Your task to perform on an android device: Search for the best selling books on Target. Image 0: 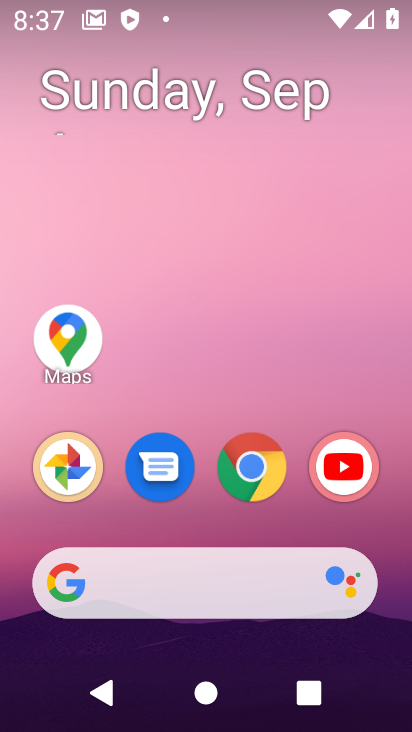
Step 0: click (246, 485)
Your task to perform on an android device: Search for the best selling books on Target. Image 1: 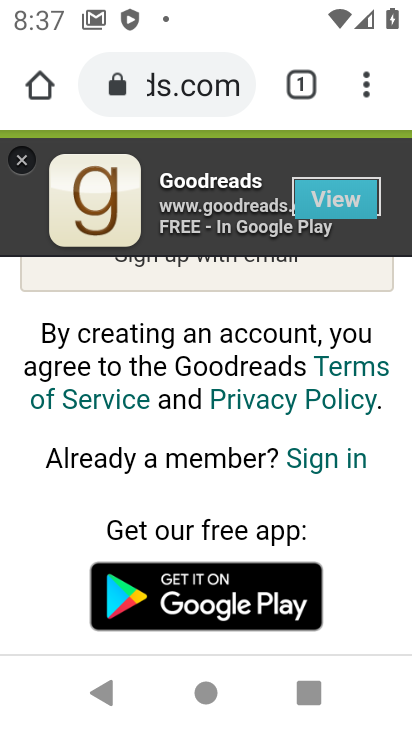
Step 1: click (187, 76)
Your task to perform on an android device: Search for the best selling books on Target. Image 2: 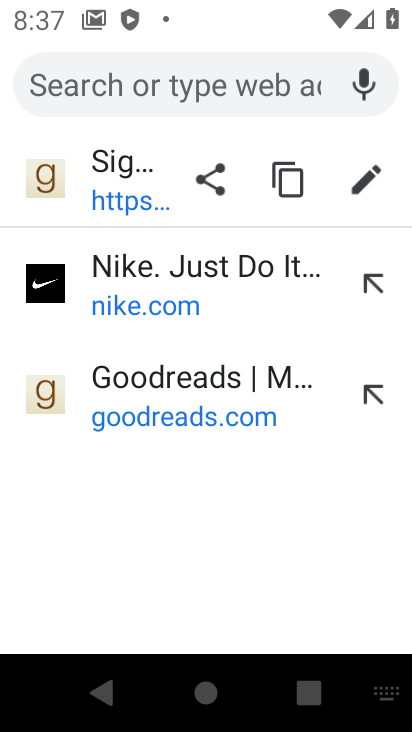
Step 2: type "target"
Your task to perform on an android device: Search for the best selling books on Target. Image 3: 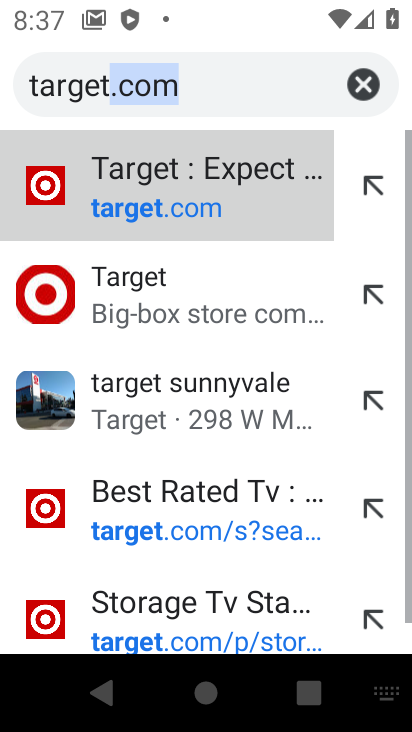
Step 3: type ""
Your task to perform on an android device: Search for the best selling books on Target. Image 4: 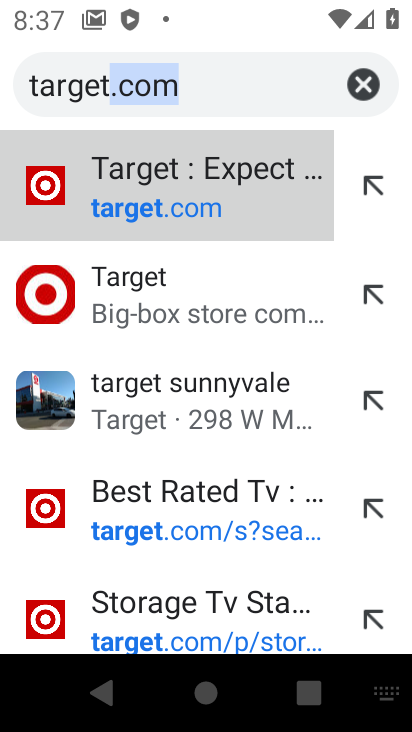
Step 4: click (167, 215)
Your task to perform on an android device: Search for the best selling books on Target. Image 5: 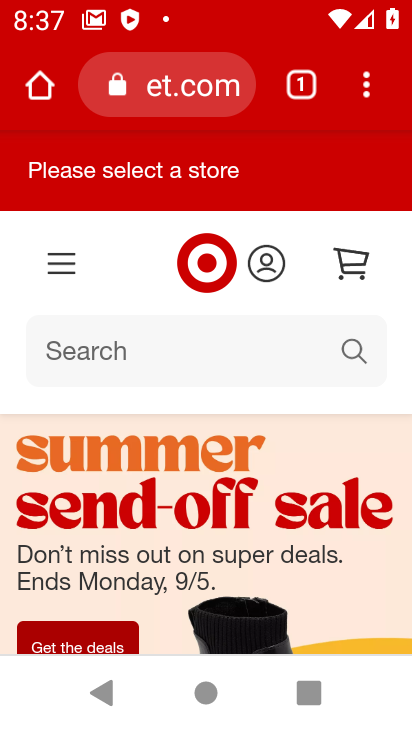
Step 5: click (257, 346)
Your task to perform on an android device: Search for the best selling books on Target. Image 6: 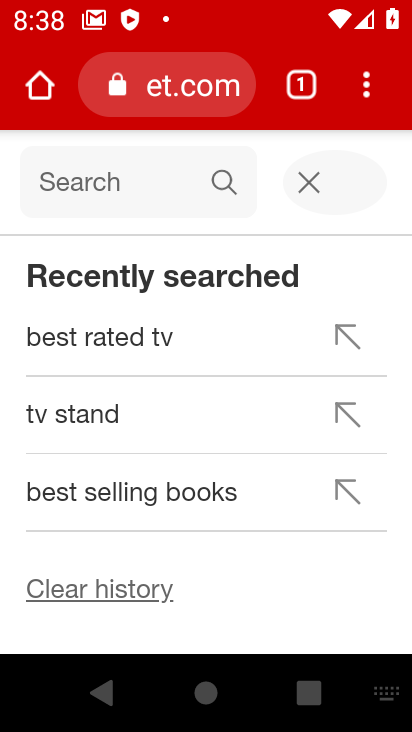
Step 6: click (173, 496)
Your task to perform on an android device: Search for the best selling books on Target. Image 7: 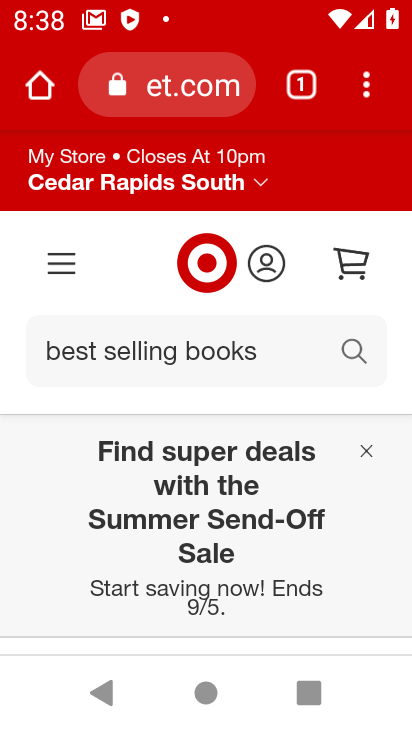
Step 7: click (347, 345)
Your task to perform on an android device: Search for the best selling books on Target. Image 8: 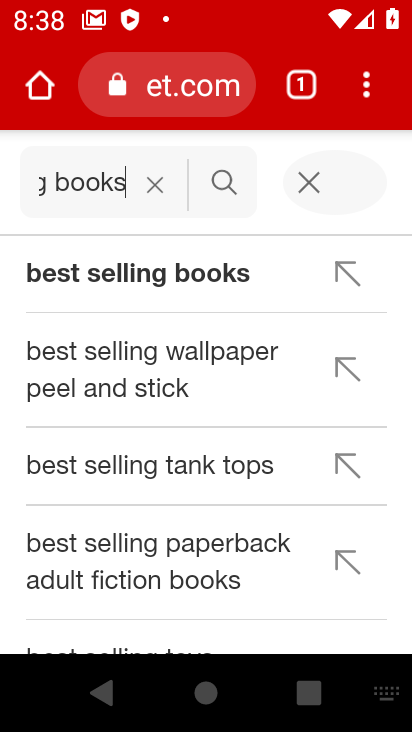
Step 8: click (123, 269)
Your task to perform on an android device: Search for the best selling books on Target. Image 9: 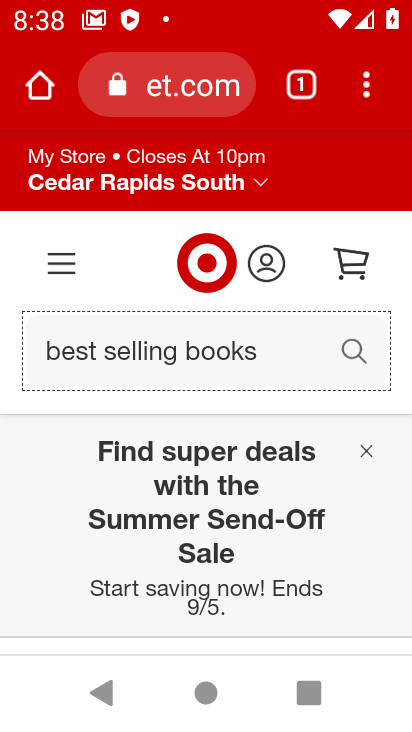
Step 9: click (391, 550)
Your task to perform on an android device: Search for the best selling books on Target. Image 10: 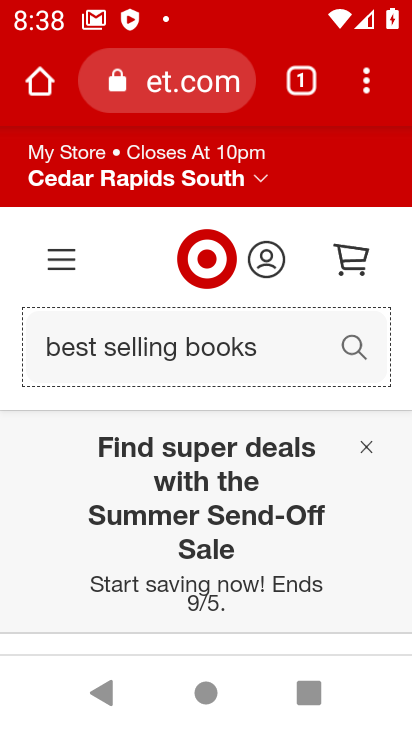
Step 10: drag from (360, 571) to (384, 207)
Your task to perform on an android device: Search for the best selling books on Target. Image 11: 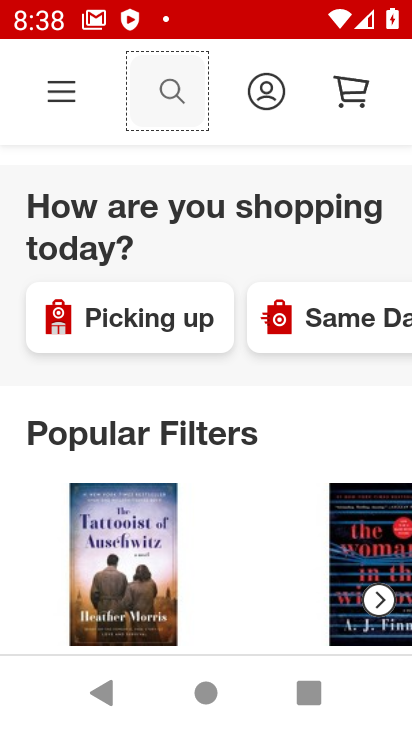
Step 11: drag from (391, 232) to (390, 169)
Your task to perform on an android device: Search for the best selling books on Target. Image 12: 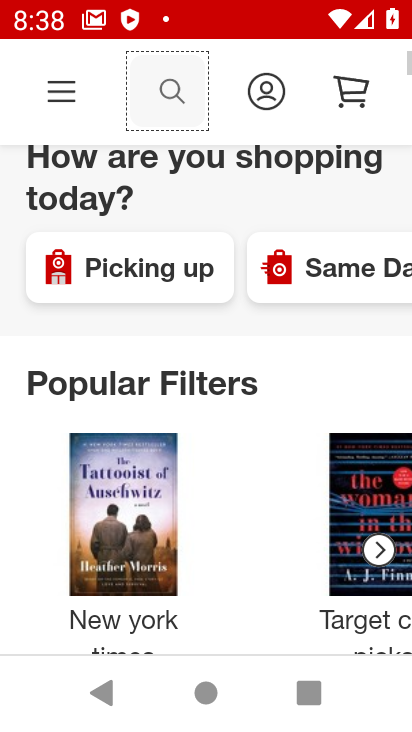
Step 12: drag from (285, 360) to (302, 98)
Your task to perform on an android device: Search for the best selling books on Target. Image 13: 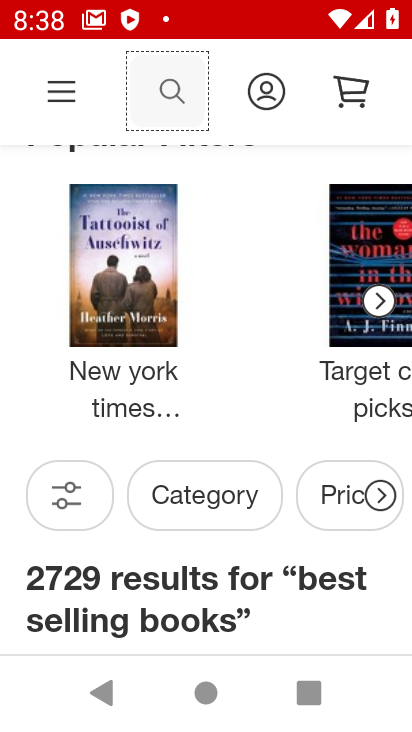
Step 13: drag from (247, 395) to (271, 171)
Your task to perform on an android device: Search for the best selling books on Target. Image 14: 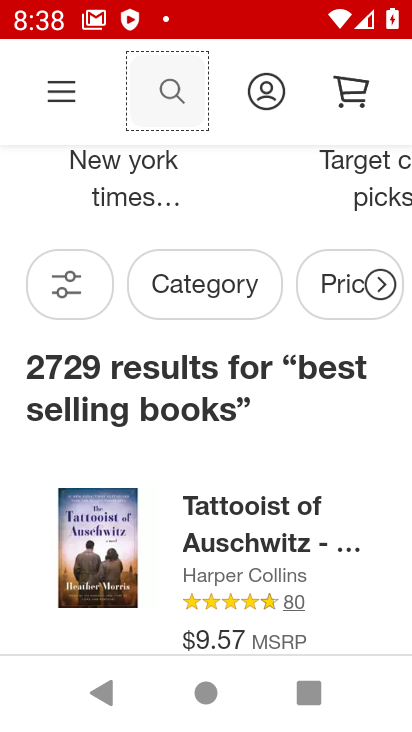
Step 14: drag from (379, 358) to (386, 77)
Your task to perform on an android device: Search for the best selling books on Target. Image 15: 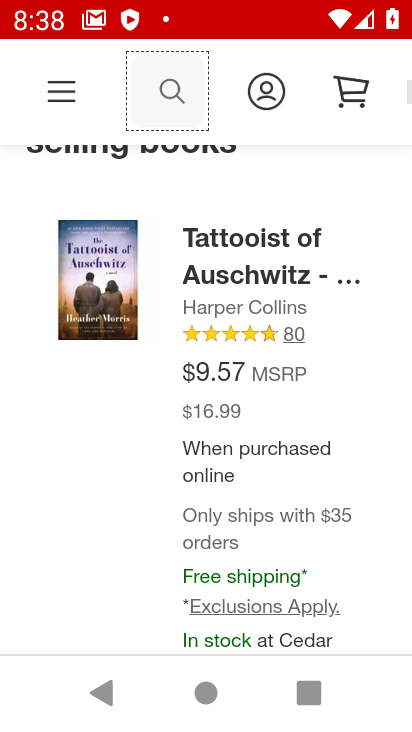
Step 15: drag from (381, 496) to (380, 140)
Your task to perform on an android device: Search for the best selling books on Target. Image 16: 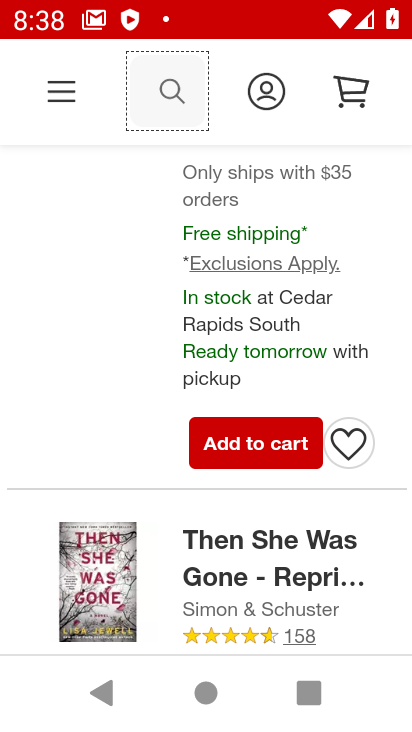
Step 16: click (410, 242)
Your task to perform on an android device: Search for the best selling books on Target. Image 17: 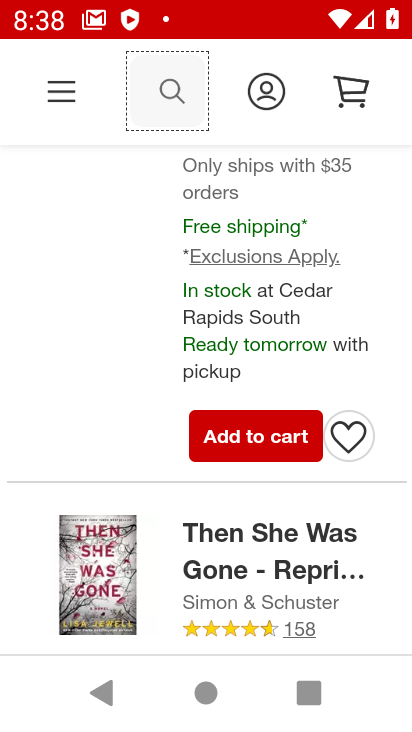
Step 17: drag from (372, 541) to (356, 265)
Your task to perform on an android device: Search for the best selling books on Target. Image 18: 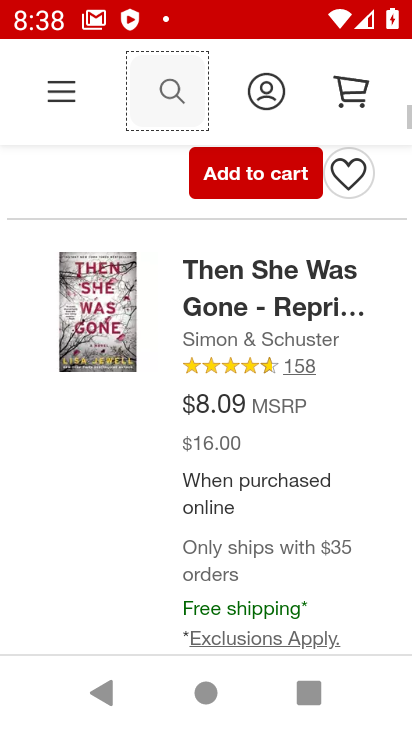
Step 18: drag from (357, 530) to (384, 284)
Your task to perform on an android device: Search for the best selling books on Target. Image 19: 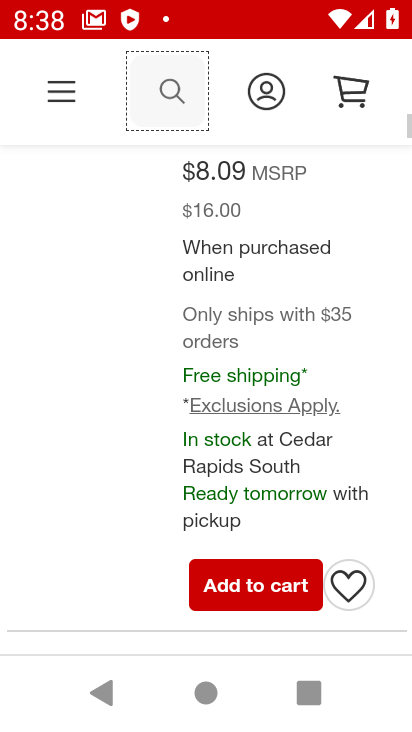
Step 19: drag from (407, 611) to (408, 366)
Your task to perform on an android device: Search for the best selling books on Target. Image 20: 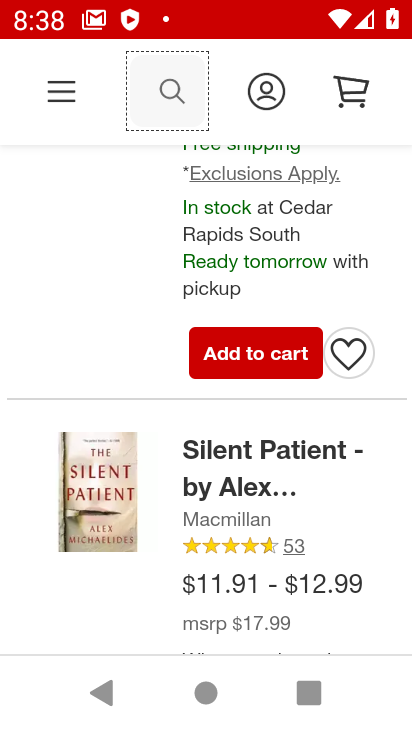
Step 20: drag from (366, 525) to (381, 308)
Your task to perform on an android device: Search for the best selling books on Target. Image 21: 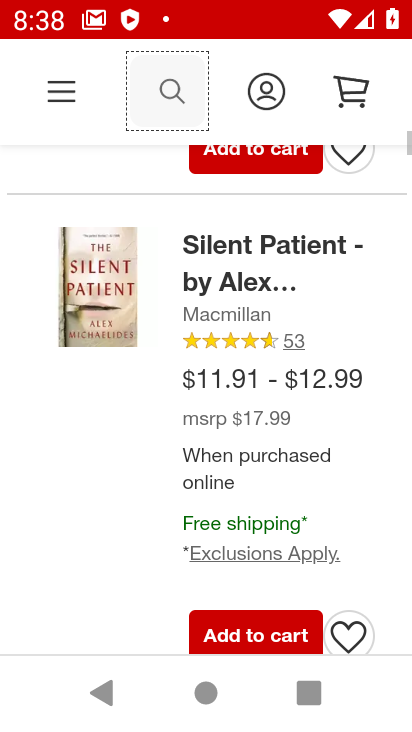
Step 21: click (364, 316)
Your task to perform on an android device: Search for the best selling books on Target. Image 22: 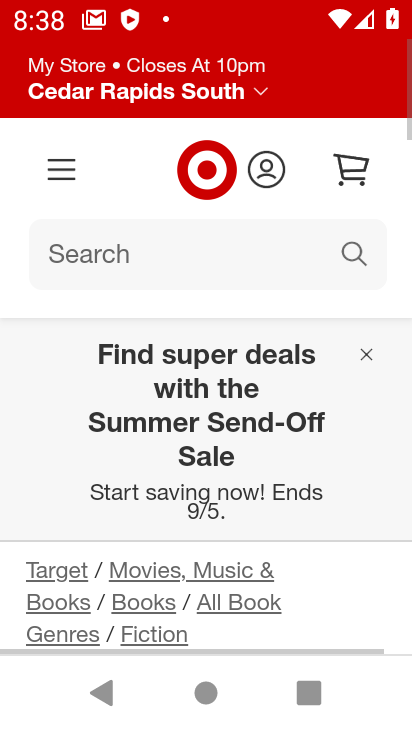
Step 22: drag from (375, 418) to (367, 173)
Your task to perform on an android device: Search for the best selling books on Target. Image 23: 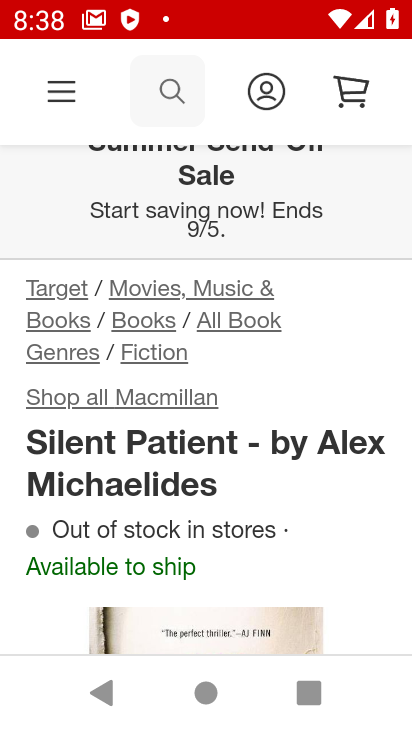
Step 23: drag from (365, 570) to (362, 238)
Your task to perform on an android device: Search for the best selling books on Target. Image 24: 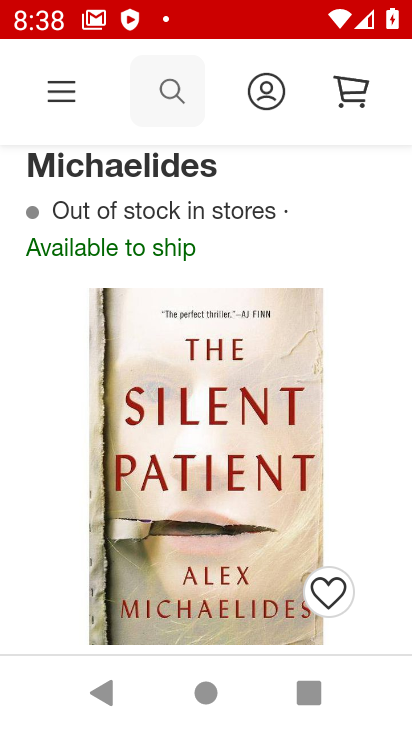
Step 24: drag from (327, 268) to (340, 173)
Your task to perform on an android device: Search for the best selling books on Target. Image 25: 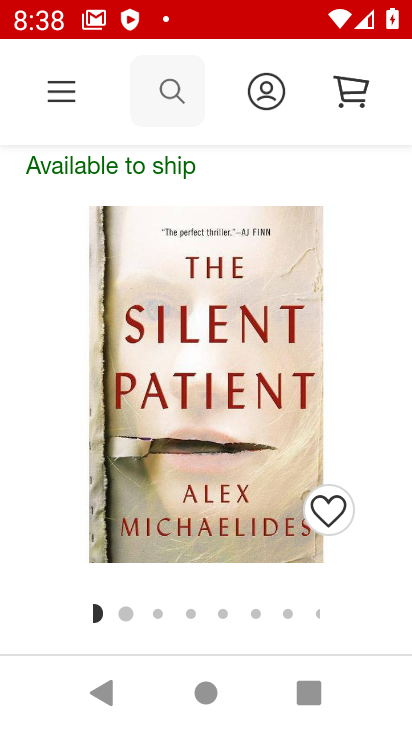
Step 25: drag from (368, 417) to (353, 147)
Your task to perform on an android device: Search for the best selling books on Target. Image 26: 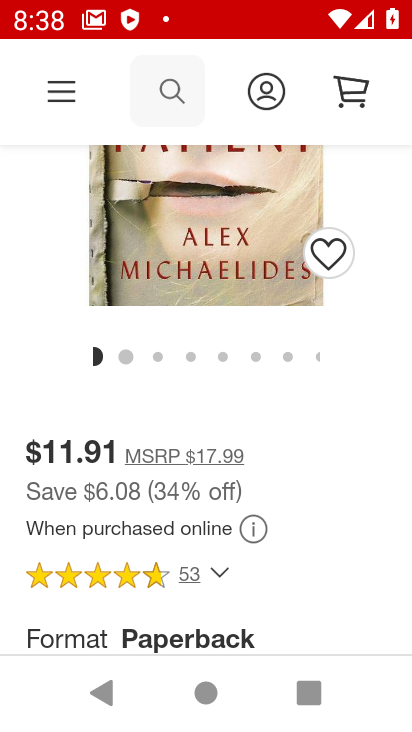
Step 26: drag from (384, 139) to (393, 52)
Your task to perform on an android device: Search for the best selling books on Target. Image 27: 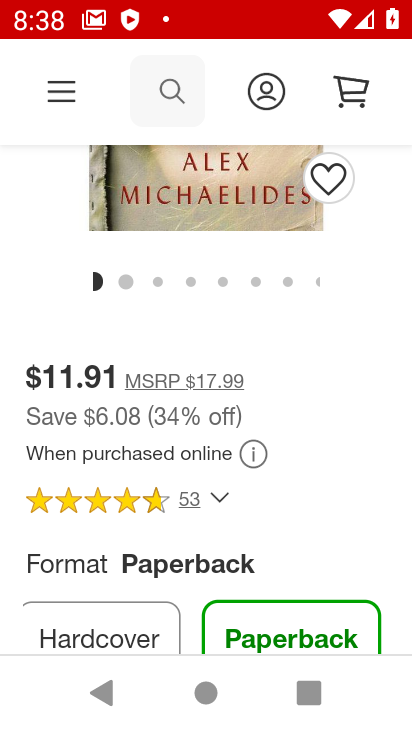
Step 27: drag from (359, 318) to (392, 165)
Your task to perform on an android device: Search for the best selling books on Target. Image 28: 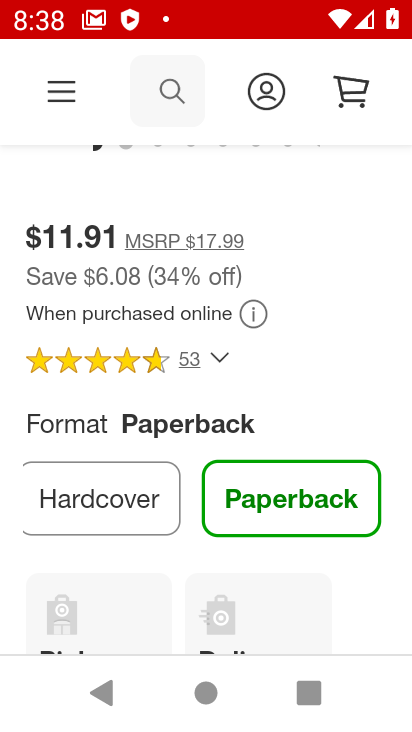
Step 28: drag from (322, 382) to (340, 209)
Your task to perform on an android device: Search for the best selling books on Target. Image 29: 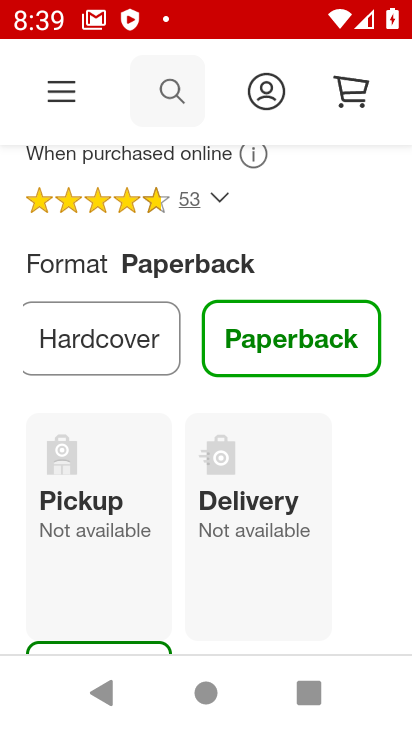
Step 29: drag from (360, 506) to (390, 195)
Your task to perform on an android device: Search for the best selling books on Target. Image 30: 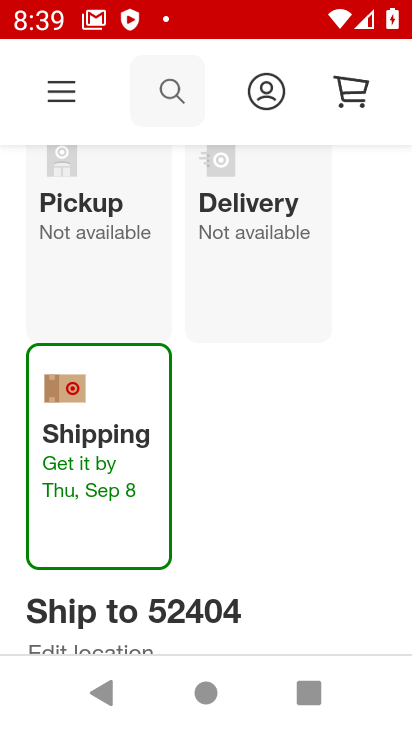
Step 30: click (395, 153)
Your task to perform on an android device: Search for the best selling books on Target. Image 31: 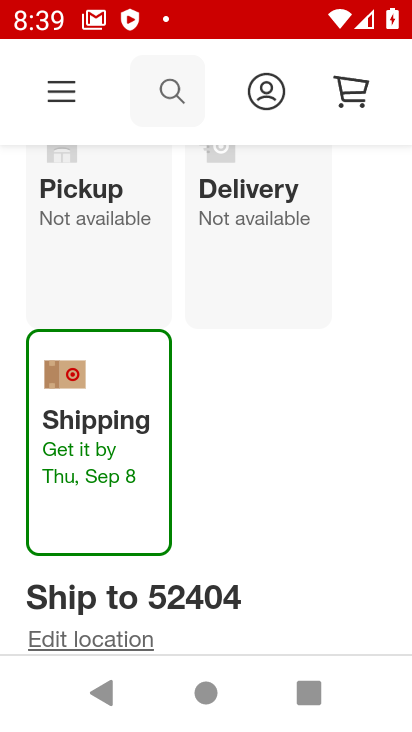
Step 31: drag from (357, 548) to (305, 359)
Your task to perform on an android device: Search for the best selling books on Target. Image 32: 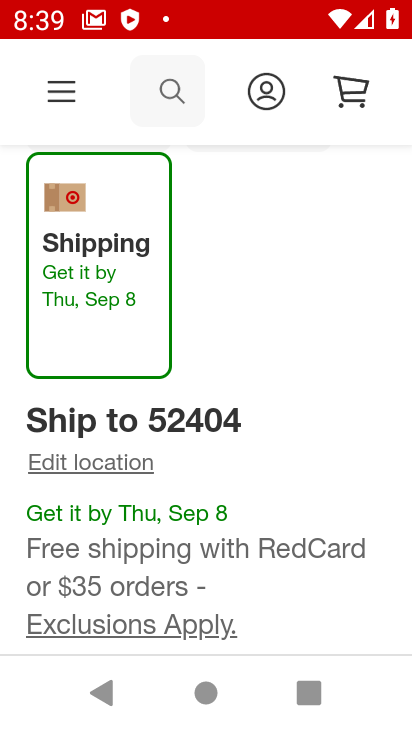
Step 32: drag from (383, 436) to (335, 150)
Your task to perform on an android device: Search for the best selling books on Target. Image 33: 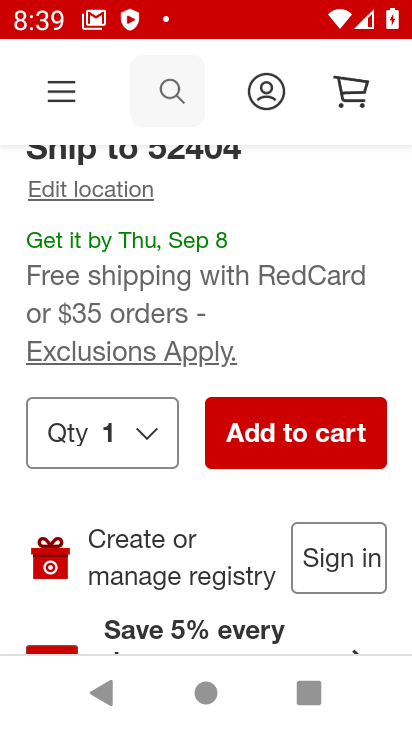
Step 33: drag from (400, 420) to (383, 135)
Your task to perform on an android device: Search for the best selling books on Target. Image 34: 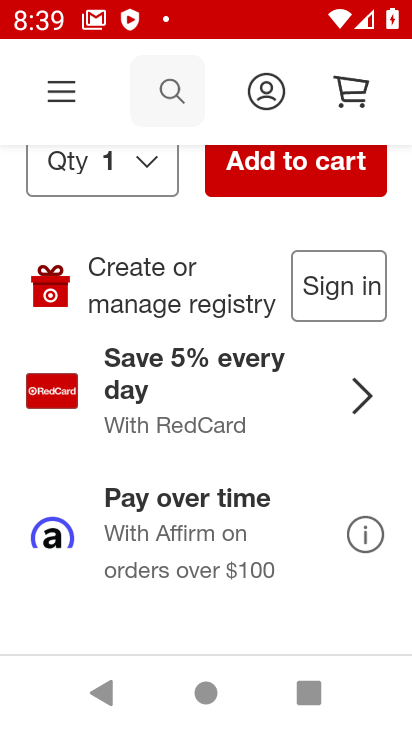
Step 34: drag from (396, 432) to (373, 165)
Your task to perform on an android device: Search for the best selling books on Target. Image 35: 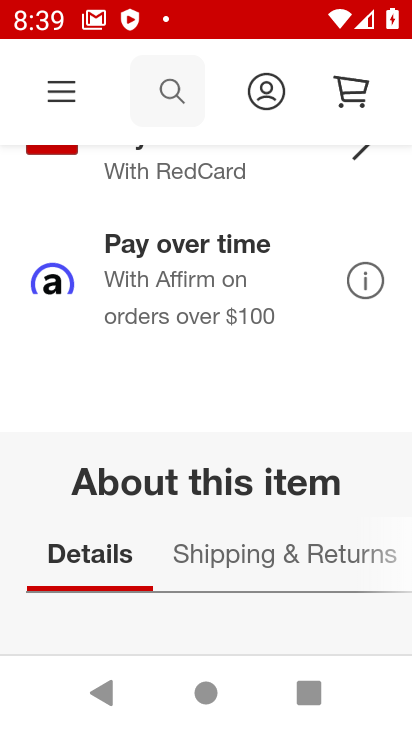
Step 35: click (401, 147)
Your task to perform on an android device: Search for the best selling books on Target. Image 36: 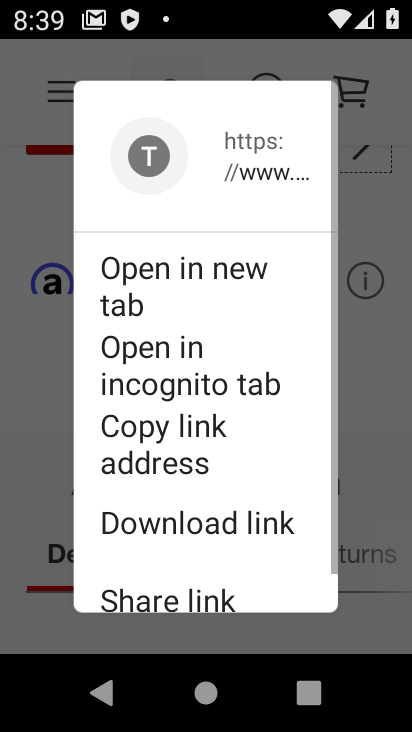
Step 36: task complete